Your task to perform on an android device: open chrome and create a bookmark for the current page Image 0: 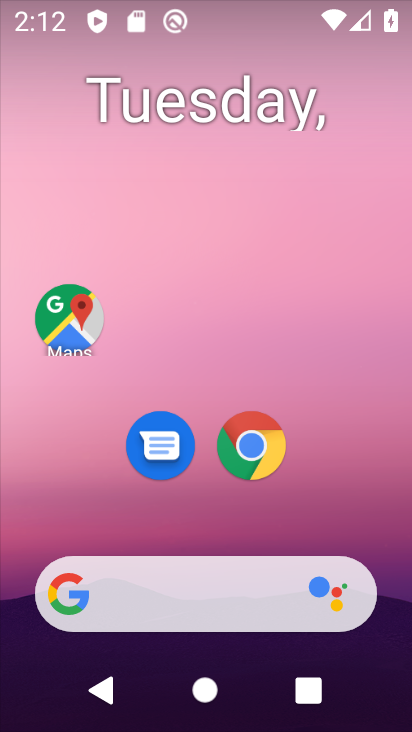
Step 0: click (348, 489)
Your task to perform on an android device: open chrome and create a bookmark for the current page Image 1: 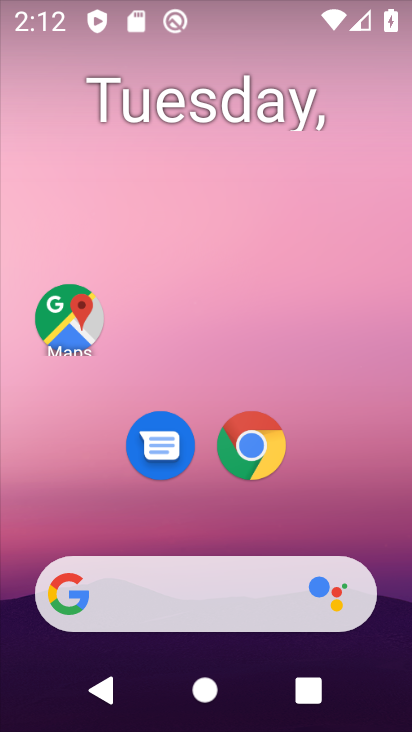
Step 1: click (245, 446)
Your task to perform on an android device: open chrome and create a bookmark for the current page Image 2: 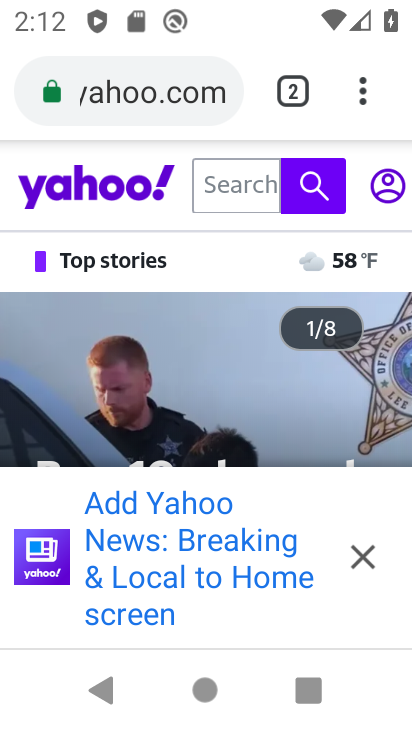
Step 2: task complete